Your task to perform on an android device: toggle pop-ups in chrome Image 0: 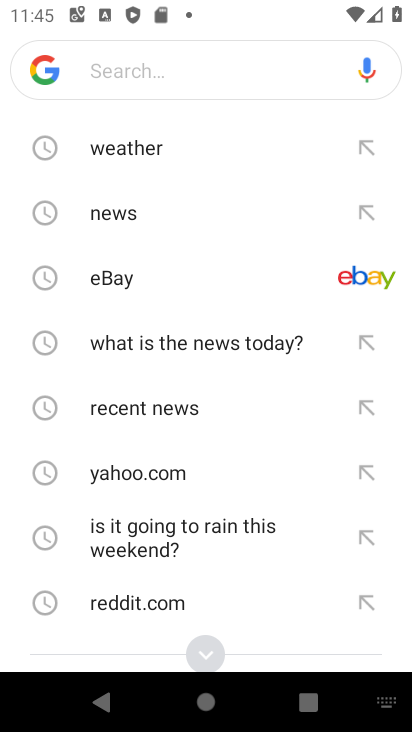
Step 0: press home button
Your task to perform on an android device: toggle pop-ups in chrome Image 1: 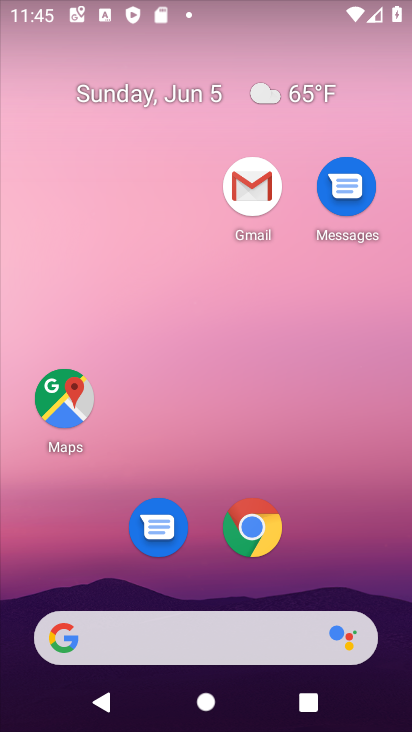
Step 1: click (246, 533)
Your task to perform on an android device: toggle pop-ups in chrome Image 2: 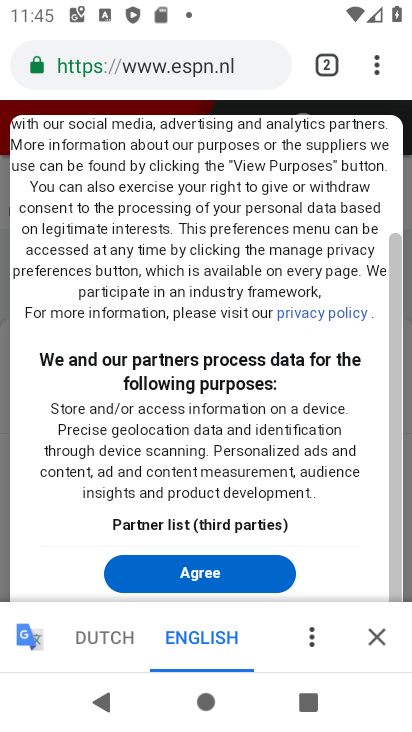
Step 2: click (385, 83)
Your task to perform on an android device: toggle pop-ups in chrome Image 3: 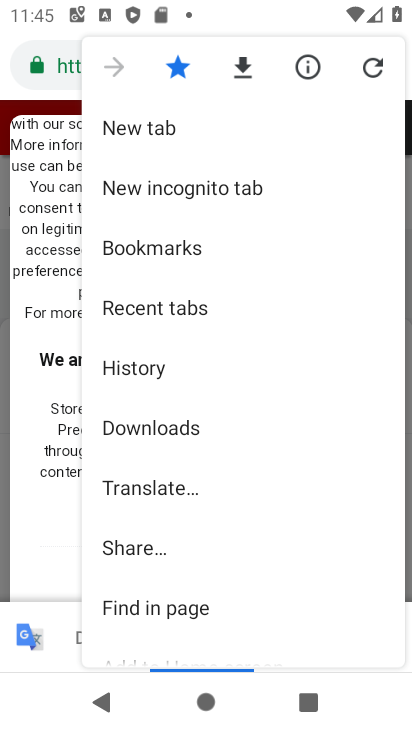
Step 3: drag from (280, 587) to (331, 290)
Your task to perform on an android device: toggle pop-ups in chrome Image 4: 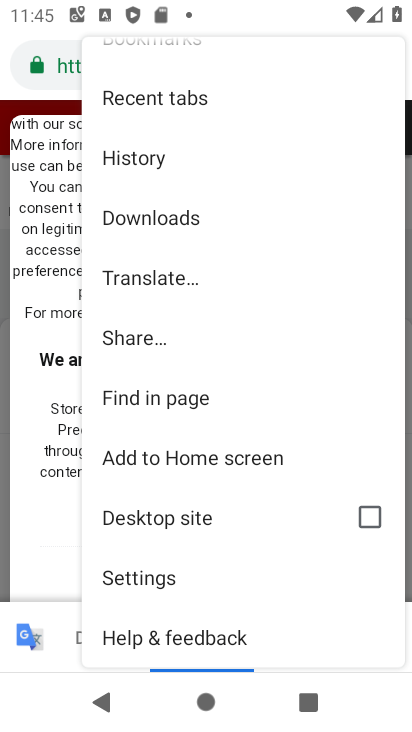
Step 4: click (137, 576)
Your task to perform on an android device: toggle pop-ups in chrome Image 5: 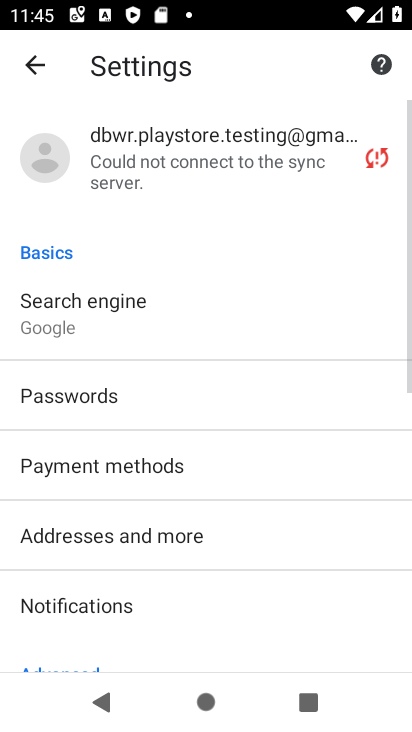
Step 5: drag from (194, 547) to (243, 216)
Your task to perform on an android device: toggle pop-ups in chrome Image 6: 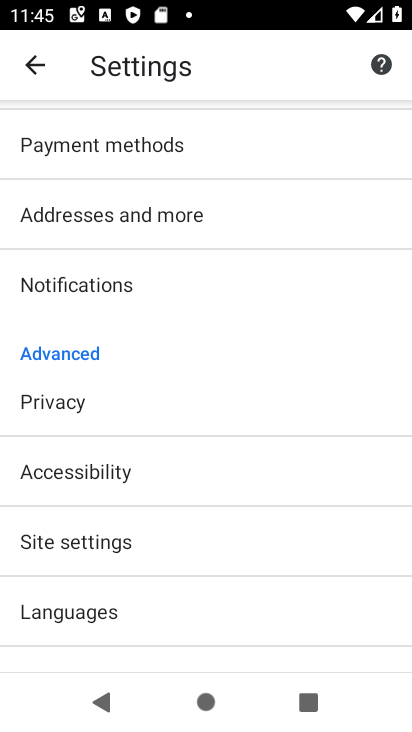
Step 6: click (125, 529)
Your task to perform on an android device: toggle pop-ups in chrome Image 7: 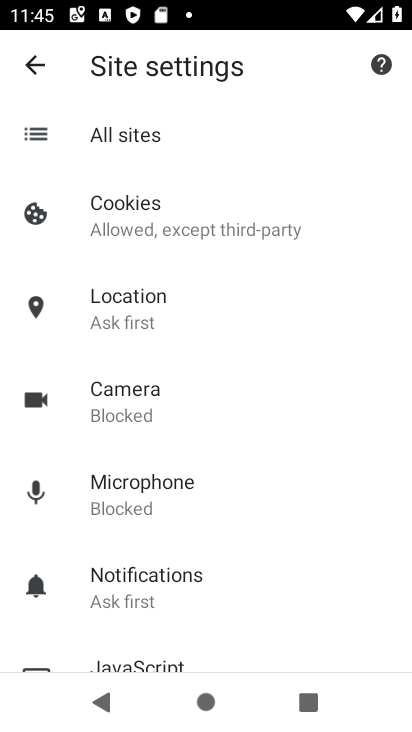
Step 7: drag from (185, 597) to (241, 289)
Your task to perform on an android device: toggle pop-ups in chrome Image 8: 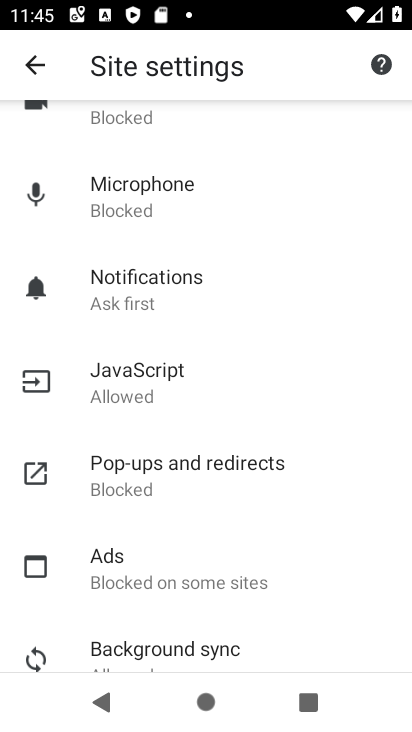
Step 8: click (244, 452)
Your task to perform on an android device: toggle pop-ups in chrome Image 9: 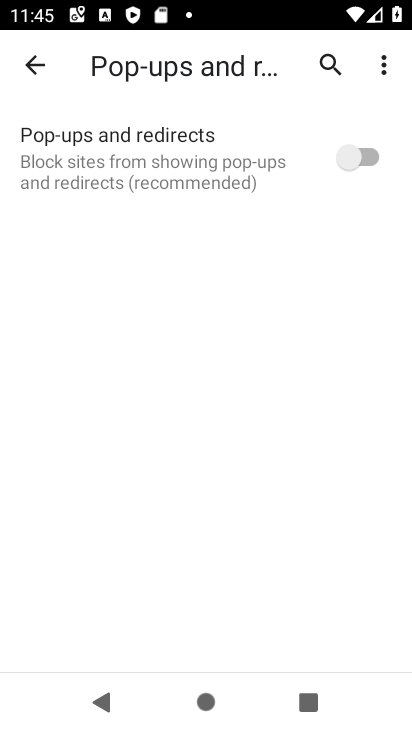
Step 9: click (355, 150)
Your task to perform on an android device: toggle pop-ups in chrome Image 10: 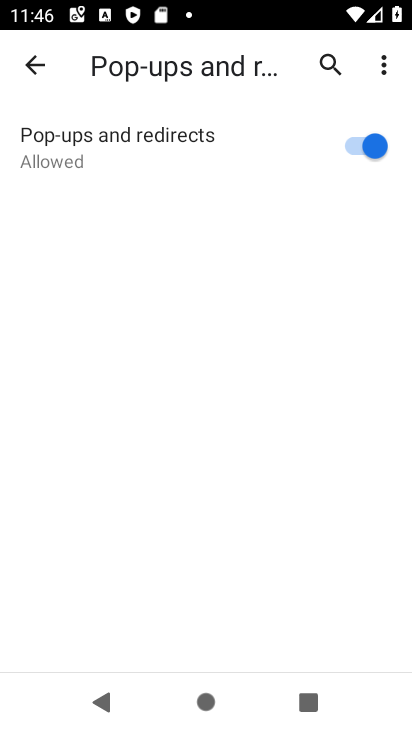
Step 10: task complete